Your task to perform on an android device: turn on javascript in the chrome app Image 0: 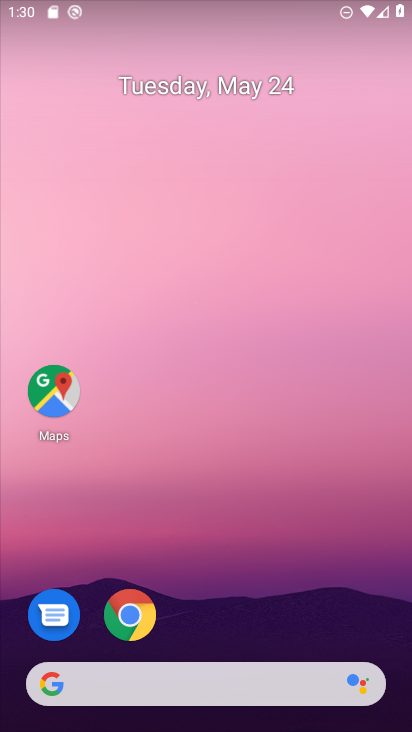
Step 0: click (136, 613)
Your task to perform on an android device: turn on javascript in the chrome app Image 1: 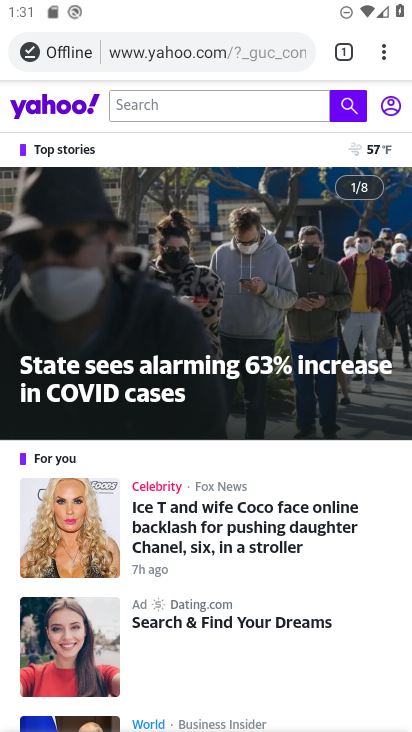
Step 1: drag from (385, 49) to (214, 583)
Your task to perform on an android device: turn on javascript in the chrome app Image 2: 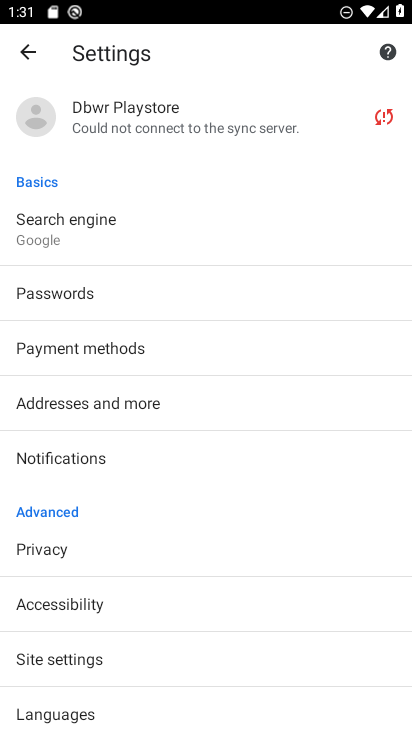
Step 2: click (94, 658)
Your task to perform on an android device: turn on javascript in the chrome app Image 3: 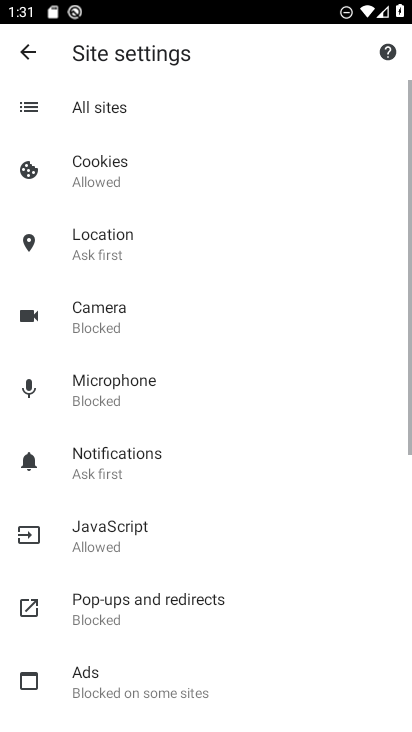
Step 3: click (115, 540)
Your task to perform on an android device: turn on javascript in the chrome app Image 4: 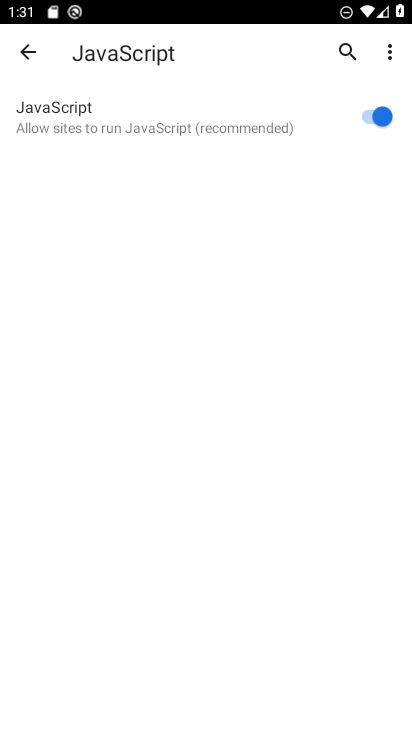
Step 4: task complete